Your task to perform on an android device: read, delete, or share a saved page in the chrome app Image 0: 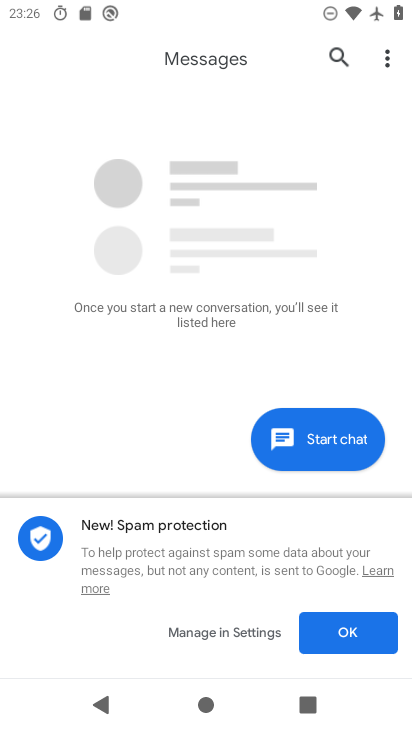
Step 0: drag from (220, 580) to (257, 274)
Your task to perform on an android device: read, delete, or share a saved page in the chrome app Image 1: 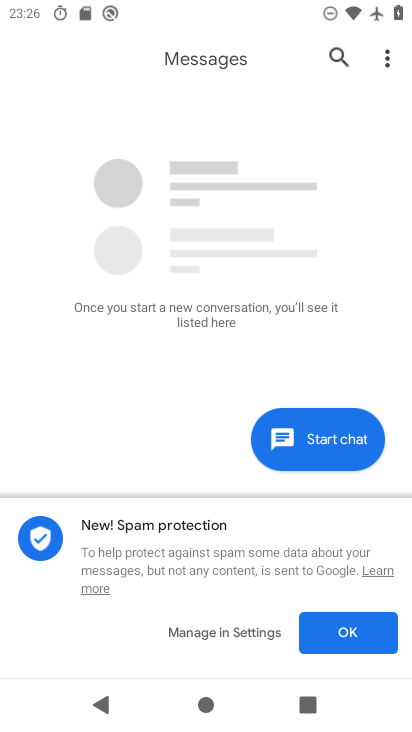
Step 1: drag from (209, 470) to (273, 188)
Your task to perform on an android device: read, delete, or share a saved page in the chrome app Image 2: 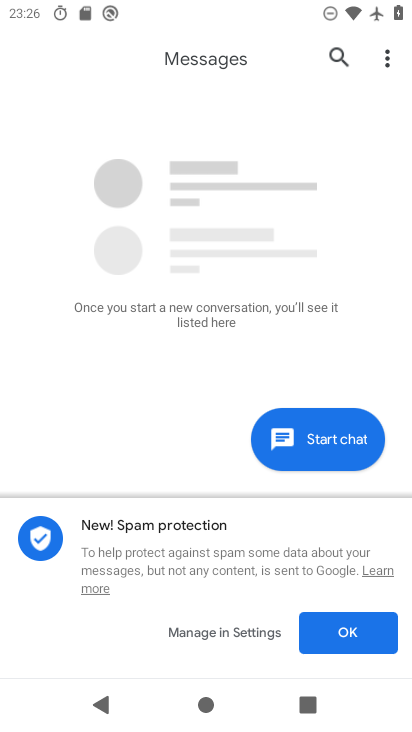
Step 2: press home button
Your task to perform on an android device: read, delete, or share a saved page in the chrome app Image 3: 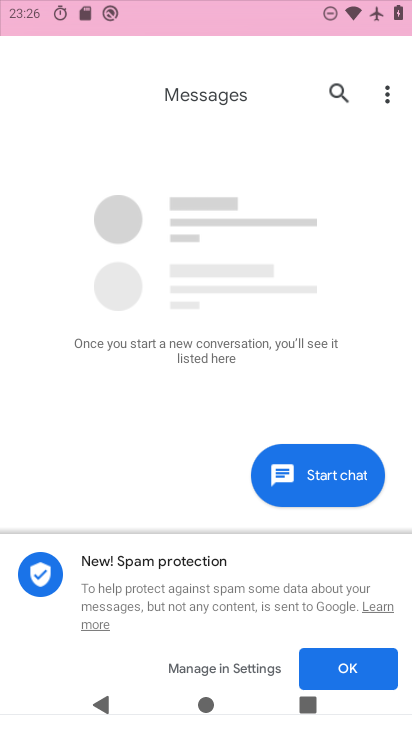
Step 3: drag from (306, 447) to (369, 50)
Your task to perform on an android device: read, delete, or share a saved page in the chrome app Image 4: 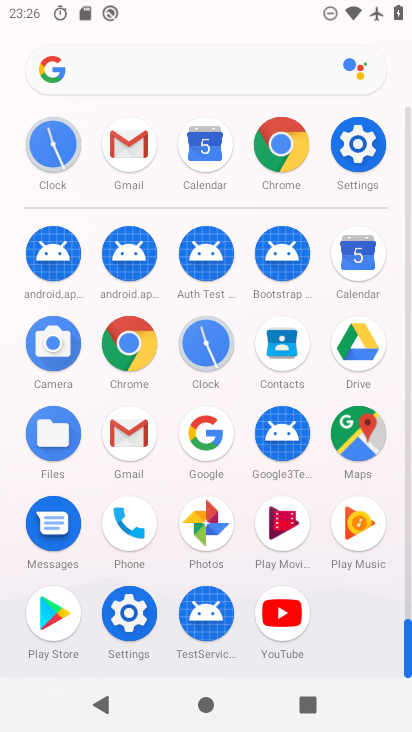
Step 4: click (273, 140)
Your task to perform on an android device: read, delete, or share a saved page in the chrome app Image 5: 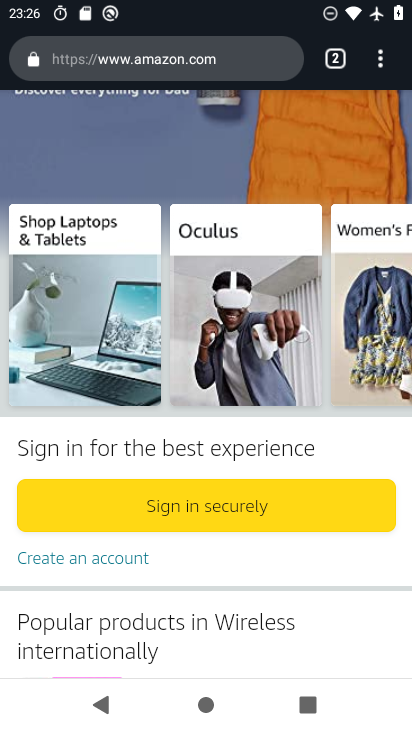
Step 5: drag from (381, 51) to (267, 222)
Your task to perform on an android device: read, delete, or share a saved page in the chrome app Image 6: 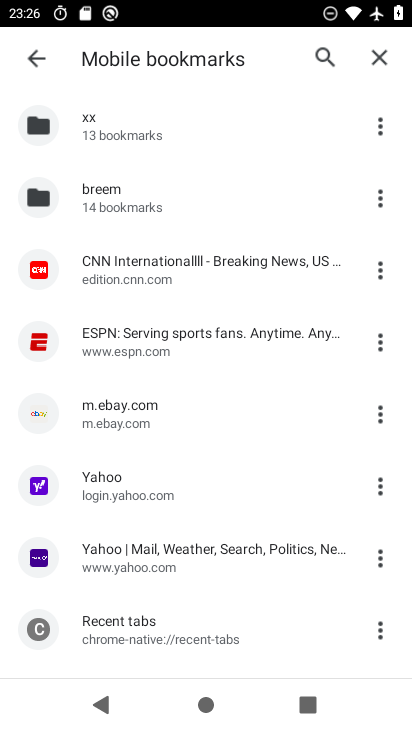
Step 6: drag from (232, 577) to (369, 38)
Your task to perform on an android device: read, delete, or share a saved page in the chrome app Image 7: 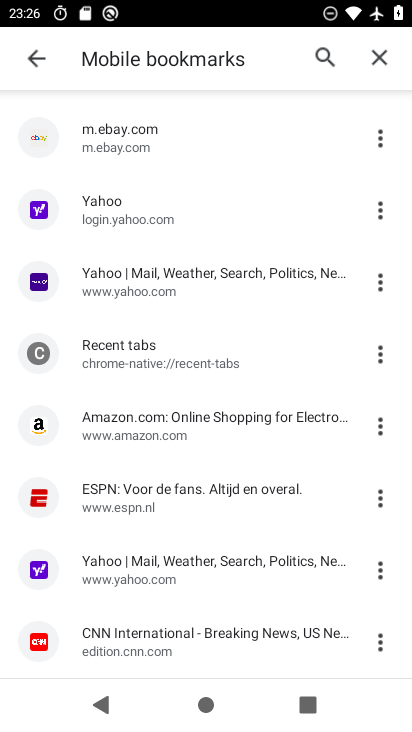
Step 7: drag from (217, 555) to (291, 244)
Your task to perform on an android device: read, delete, or share a saved page in the chrome app Image 8: 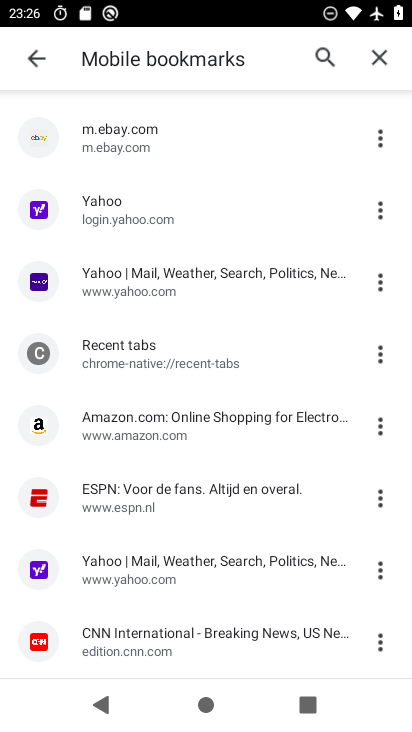
Step 8: click (386, 210)
Your task to perform on an android device: read, delete, or share a saved page in the chrome app Image 9: 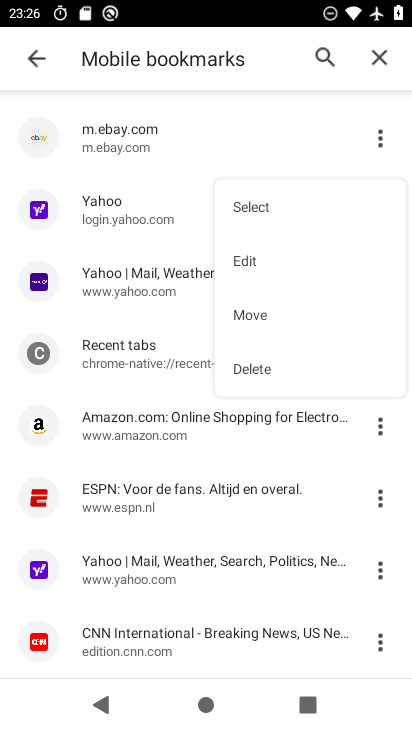
Step 9: click (247, 372)
Your task to perform on an android device: read, delete, or share a saved page in the chrome app Image 10: 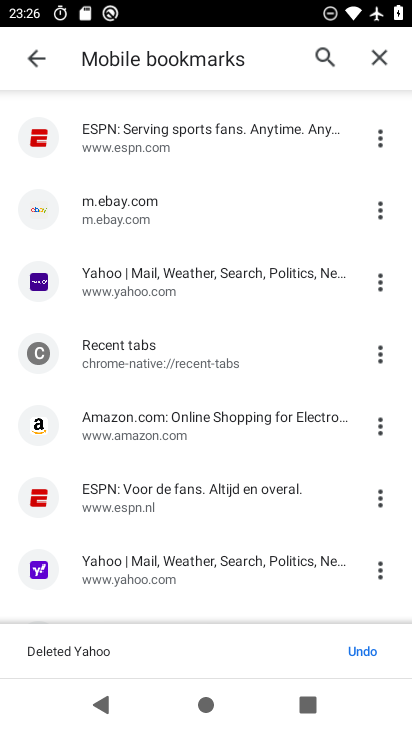
Step 10: task complete